Your task to perform on an android device: Open notification settings Image 0: 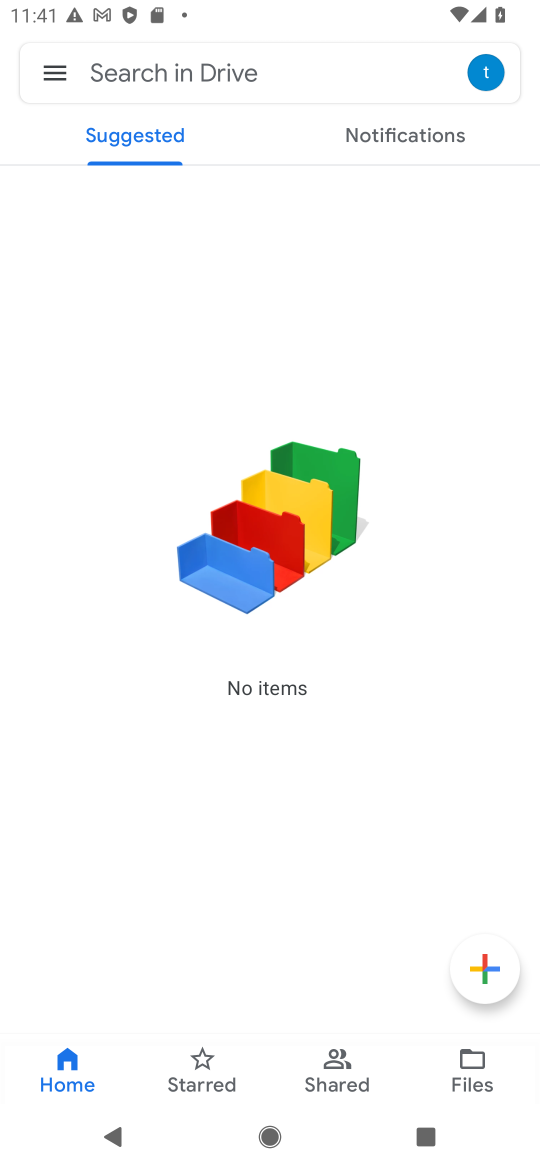
Step 0: press home button
Your task to perform on an android device: Open notification settings Image 1: 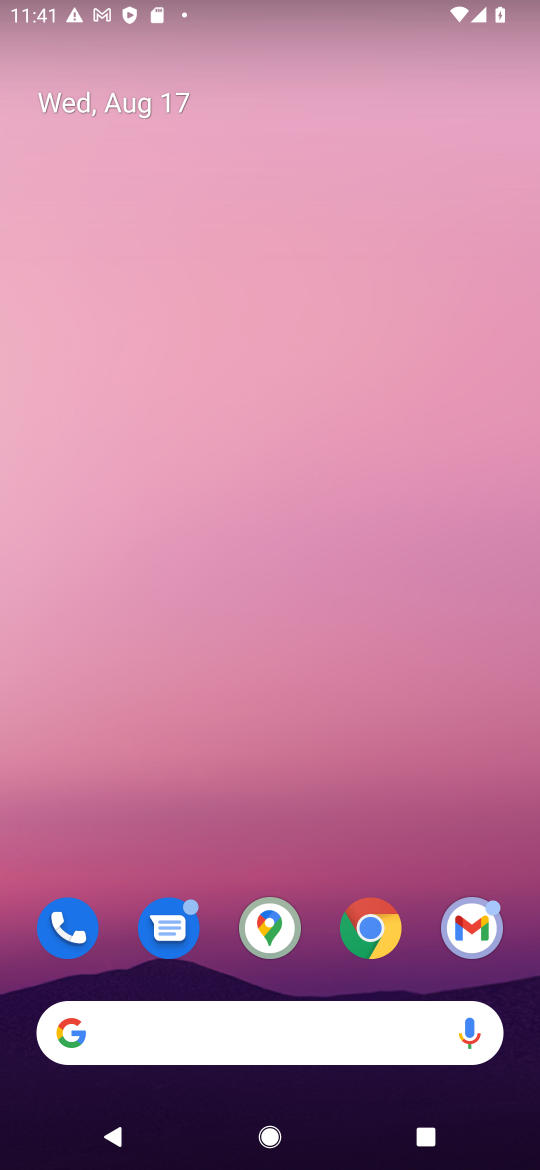
Step 1: drag from (324, 775) to (354, 231)
Your task to perform on an android device: Open notification settings Image 2: 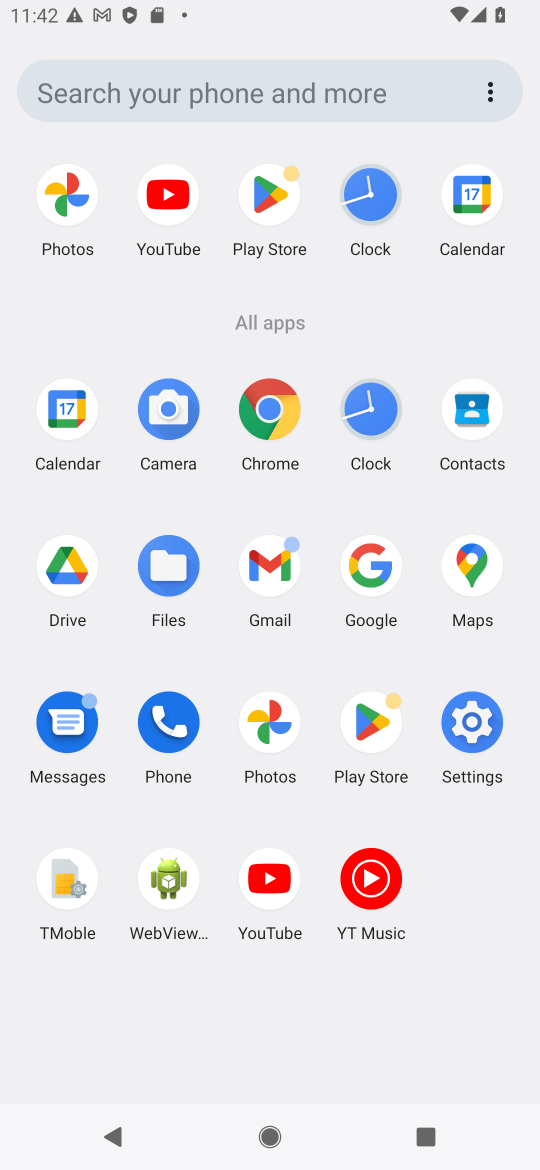
Step 2: click (469, 754)
Your task to perform on an android device: Open notification settings Image 3: 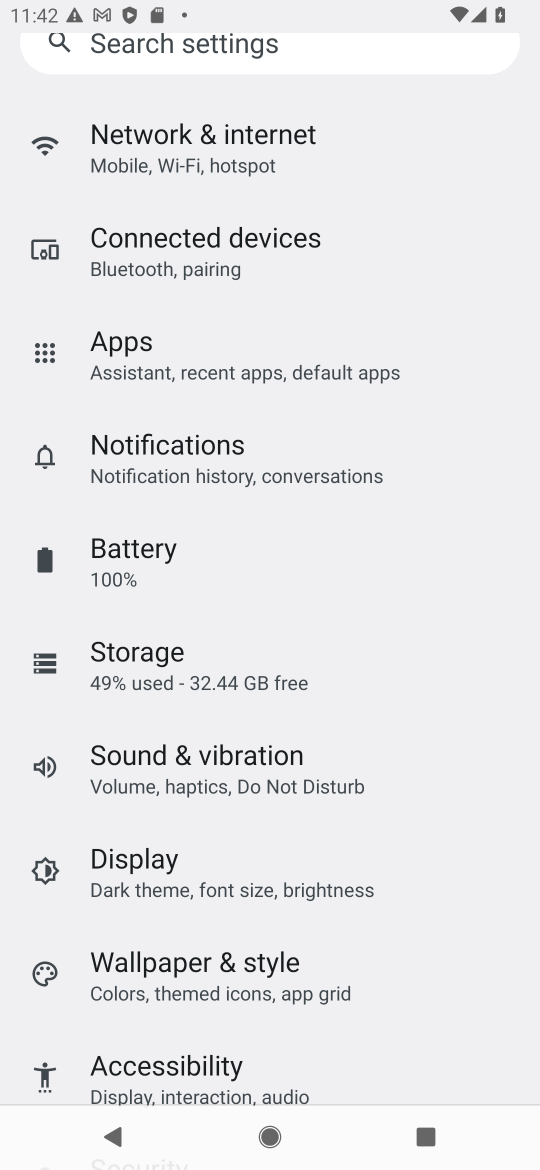
Step 3: click (210, 458)
Your task to perform on an android device: Open notification settings Image 4: 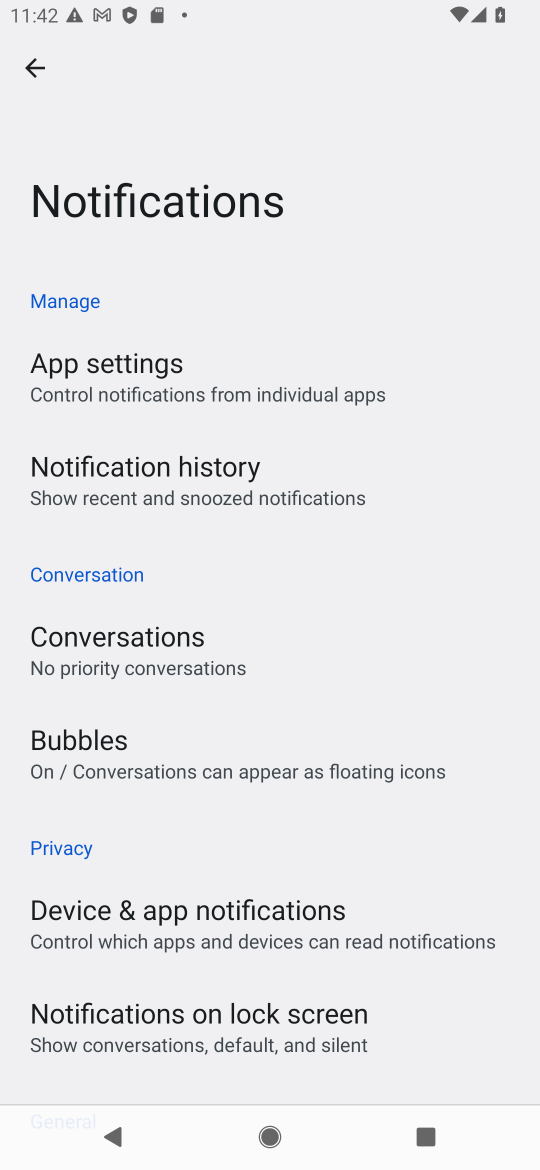
Step 4: task complete